Your task to perform on an android device: Go to sound settings Image 0: 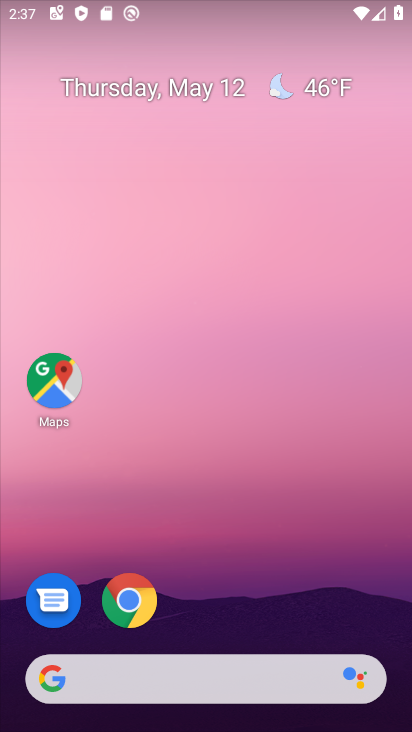
Step 0: drag from (203, 617) to (249, 3)
Your task to perform on an android device: Go to sound settings Image 1: 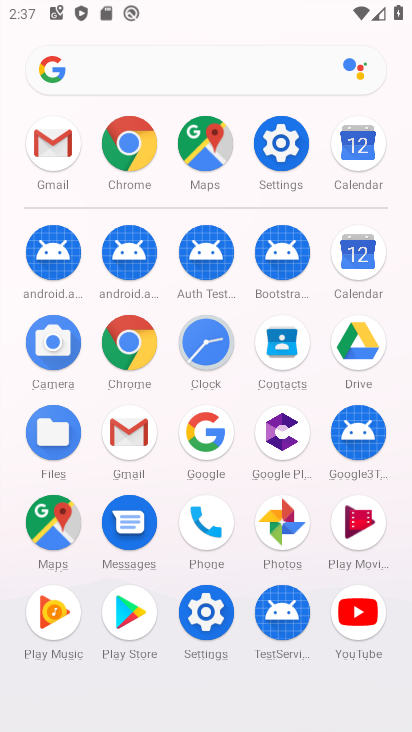
Step 1: click (289, 154)
Your task to perform on an android device: Go to sound settings Image 2: 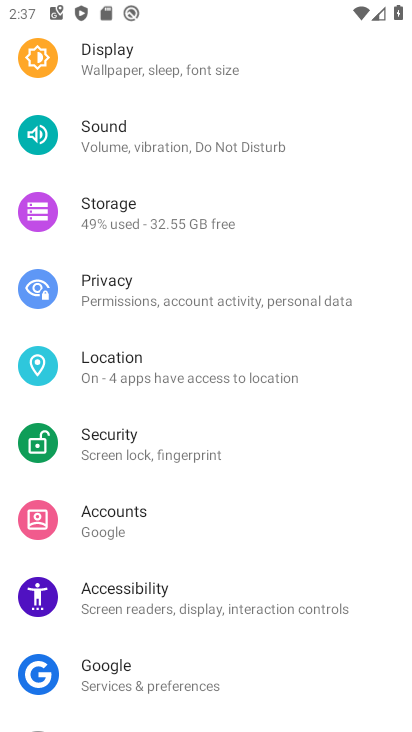
Step 2: click (143, 143)
Your task to perform on an android device: Go to sound settings Image 3: 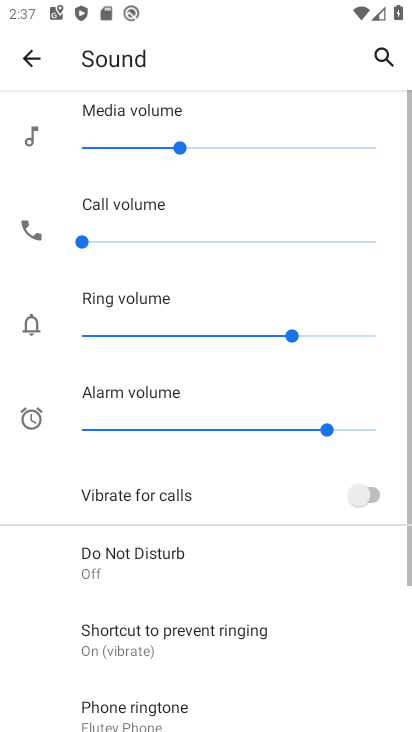
Step 3: task complete